Your task to perform on an android device: Open Chrome and go to settings Image 0: 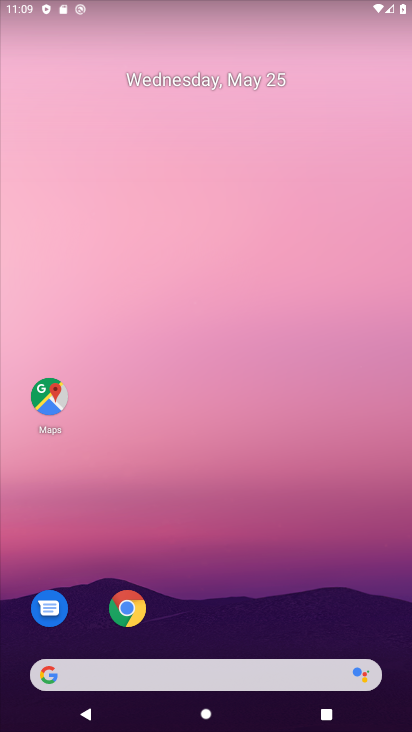
Step 0: click (140, 602)
Your task to perform on an android device: Open Chrome and go to settings Image 1: 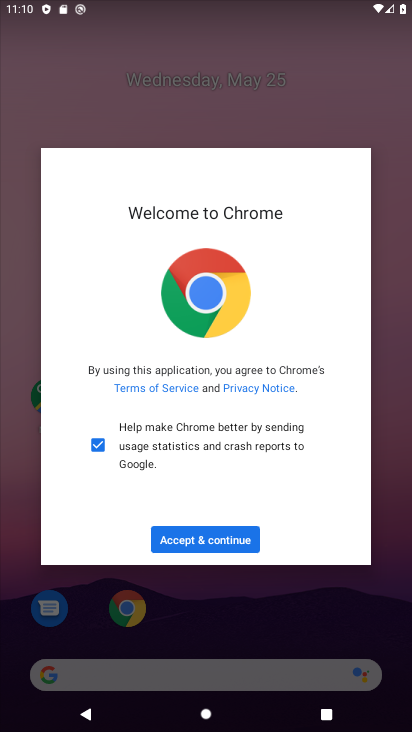
Step 1: click (227, 544)
Your task to perform on an android device: Open Chrome and go to settings Image 2: 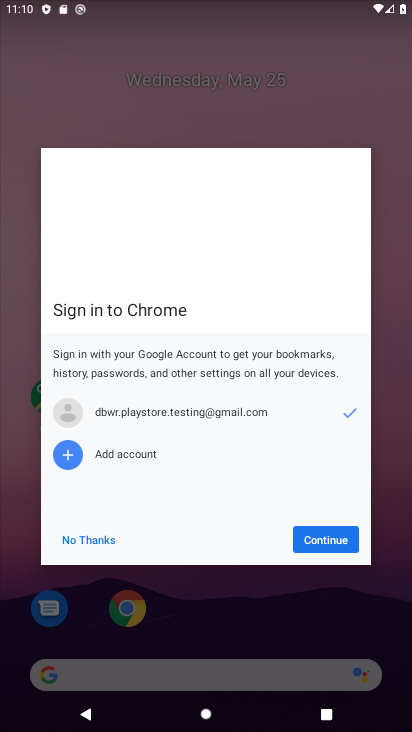
Step 2: click (319, 531)
Your task to perform on an android device: Open Chrome and go to settings Image 3: 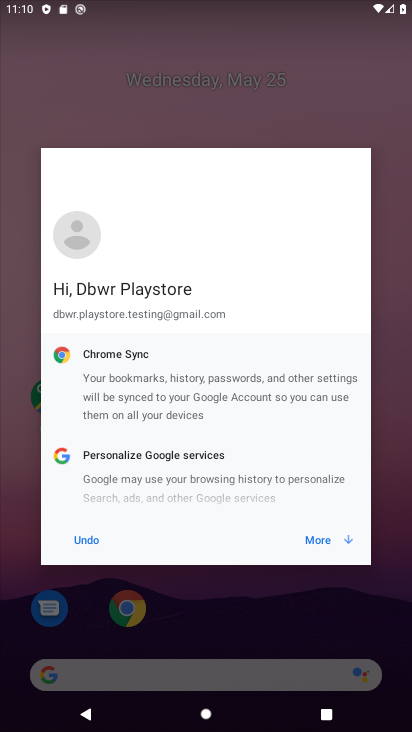
Step 3: click (316, 546)
Your task to perform on an android device: Open Chrome and go to settings Image 4: 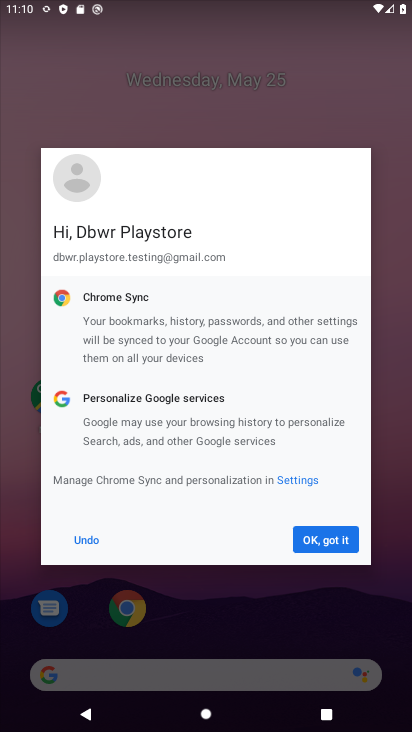
Step 4: click (316, 546)
Your task to perform on an android device: Open Chrome and go to settings Image 5: 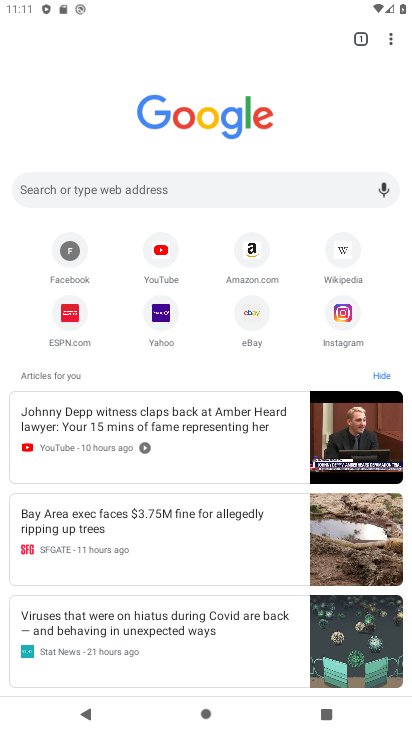
Step 5: click (394, 35)
Your task to perform on an android device: Open Chrome and go to settings Image 6: 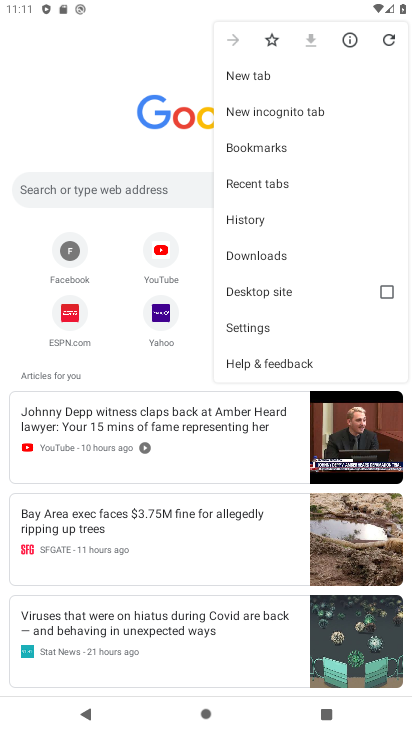
Step 6: click (279, 328)
Your task to perform on an android device: Open Chrome and go to settings Image 7: 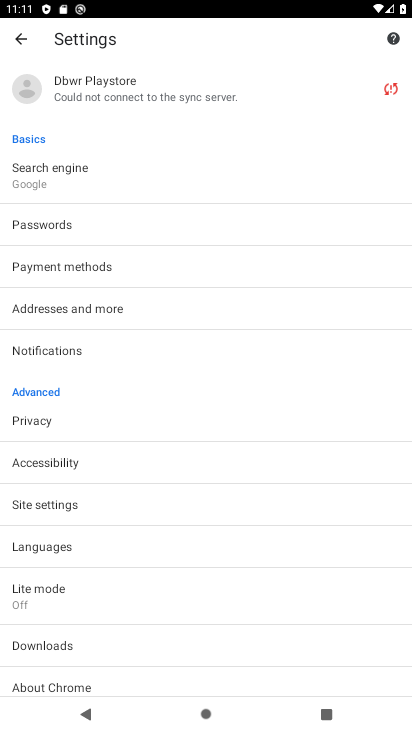
Step 7: task complete